Your task to perform on an android device: Open CNN.com Image 0: 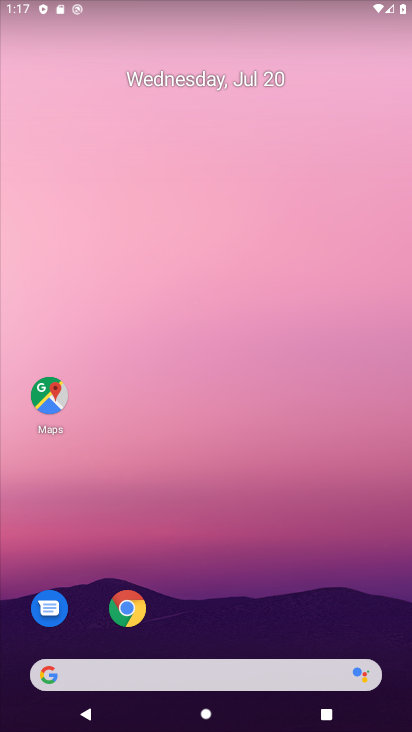
Step 0: task complete